Your task to perform on an android device: check the backup settings in the google photos Image 0: 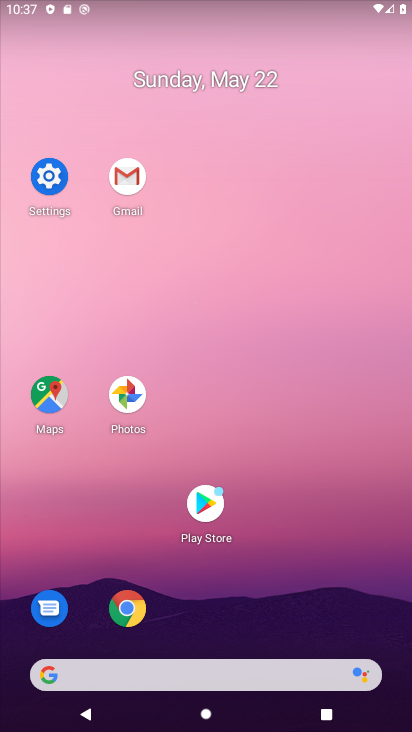
Step 0: click (122, 393)
Your task to perform on an android device: check the backup settings in the google photos Image 1: 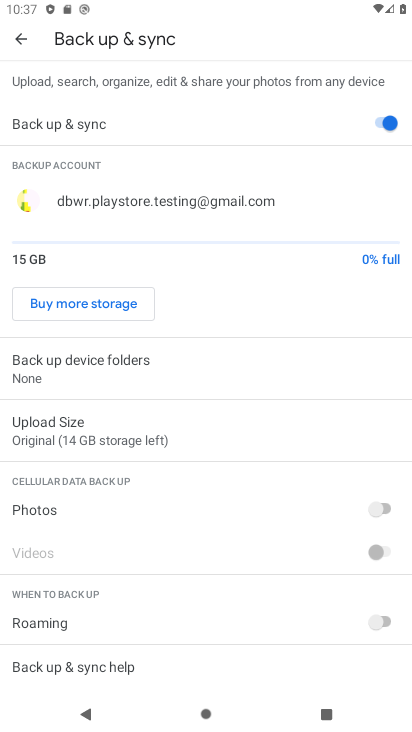
Step 1: task complete